Your task to perform on an android device: empty trash in google photos Image 0: 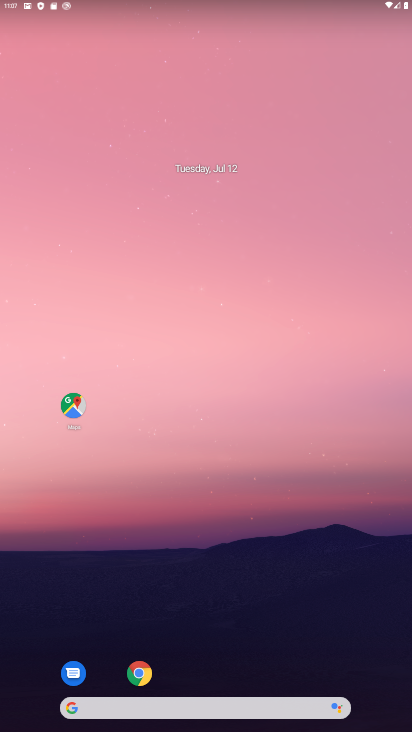
Step 0: press home button
Your task to perform on an android device: empty trash in google photos Image 1: 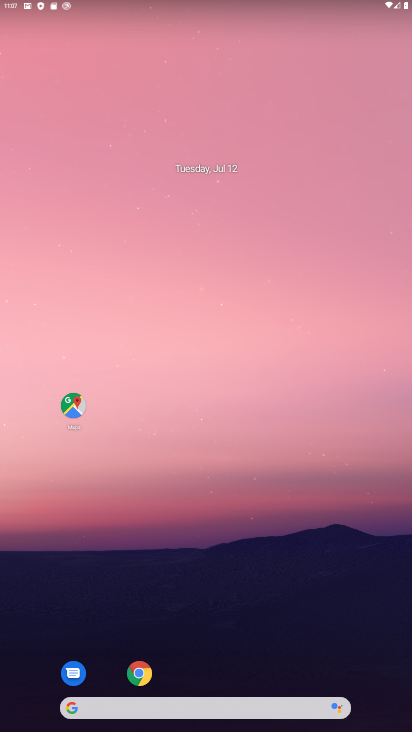
Step 1: drag from (204, 585) to (182, 20)
Your task to perform on an android device: empty trash in google photos Image 2: 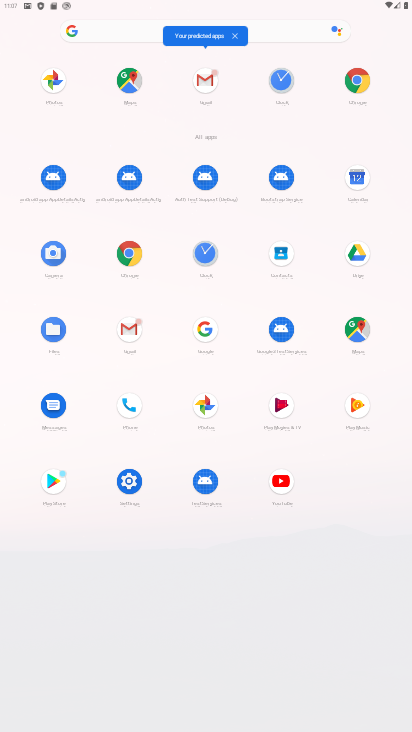
Step 2: click (207, 412)
Your task to perform on an android device: empty trash in google photos Image 3: 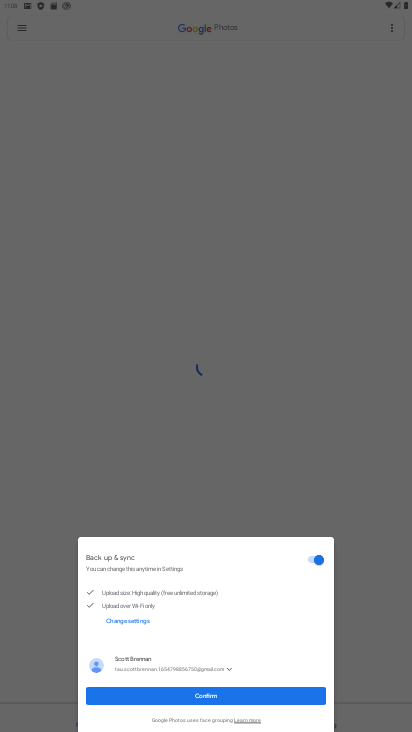
Step 3: click (194, 696)
Your task to perform on an android device: empty trash in google photos Image 4: 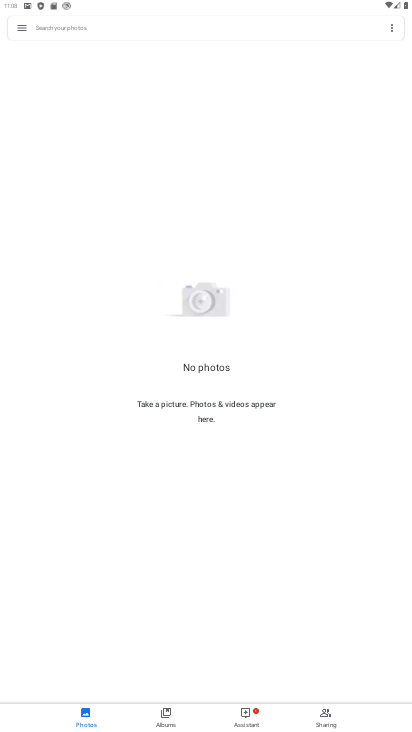
Step 4: click (17, 30)
Your task to perform on an android device: empty trash in google photos Image 5: 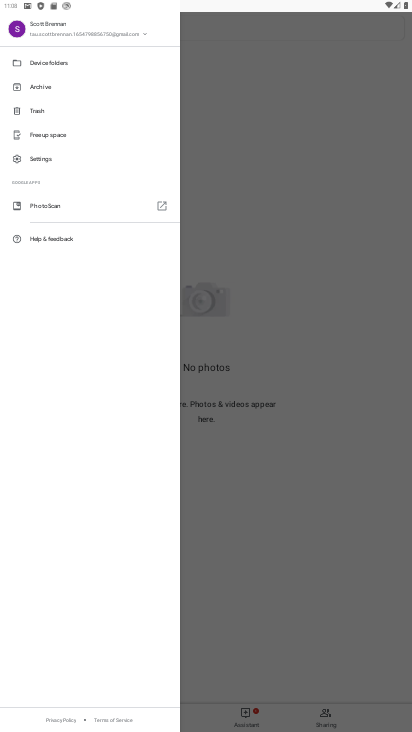
Step 5: click (57, 112)
Your task to perform on an android device: empty trash in google photos Image 6: 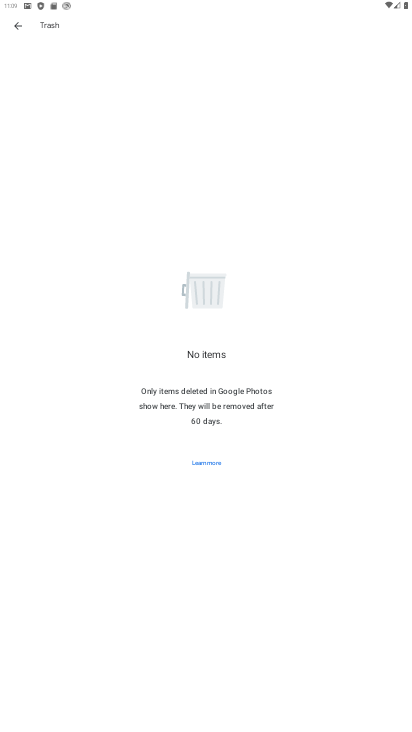
Step 6: task complete